Your task to perform on an android device: Open maps Image 0: 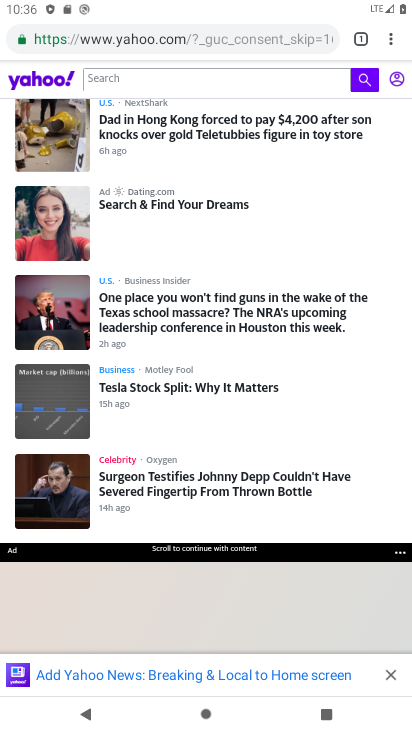
Step 0: press home button
Your task to perform on an android device: Open maps Image 1: 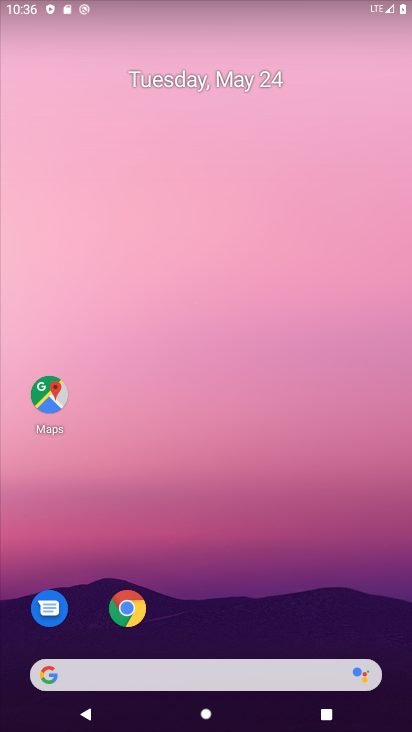
Step 1: click (45, 392)
Your task to perform on an android device: Open maps Image 2: 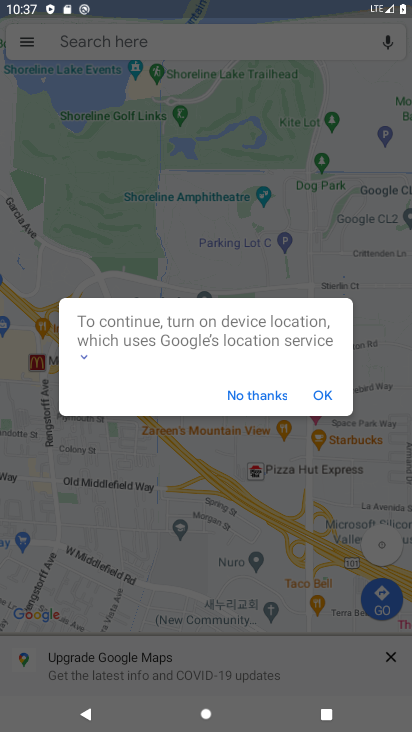
Step 2: click (322, 389)
Your task to perform on an android device: Open maps Image 3: 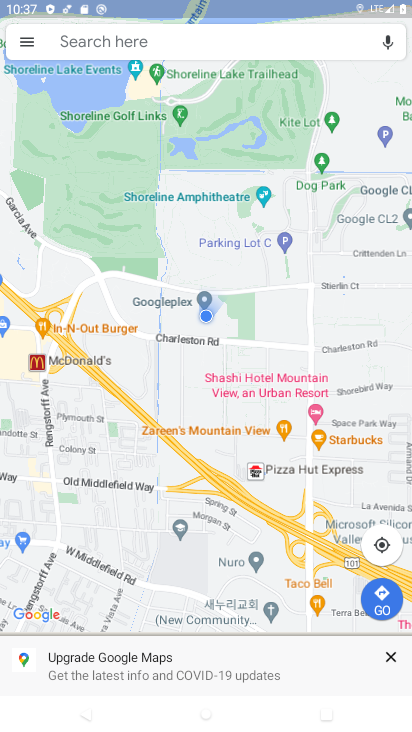
Step 3: task complete